Your task to perform on an android device: toggle show notifications on the lock screen Image 0: 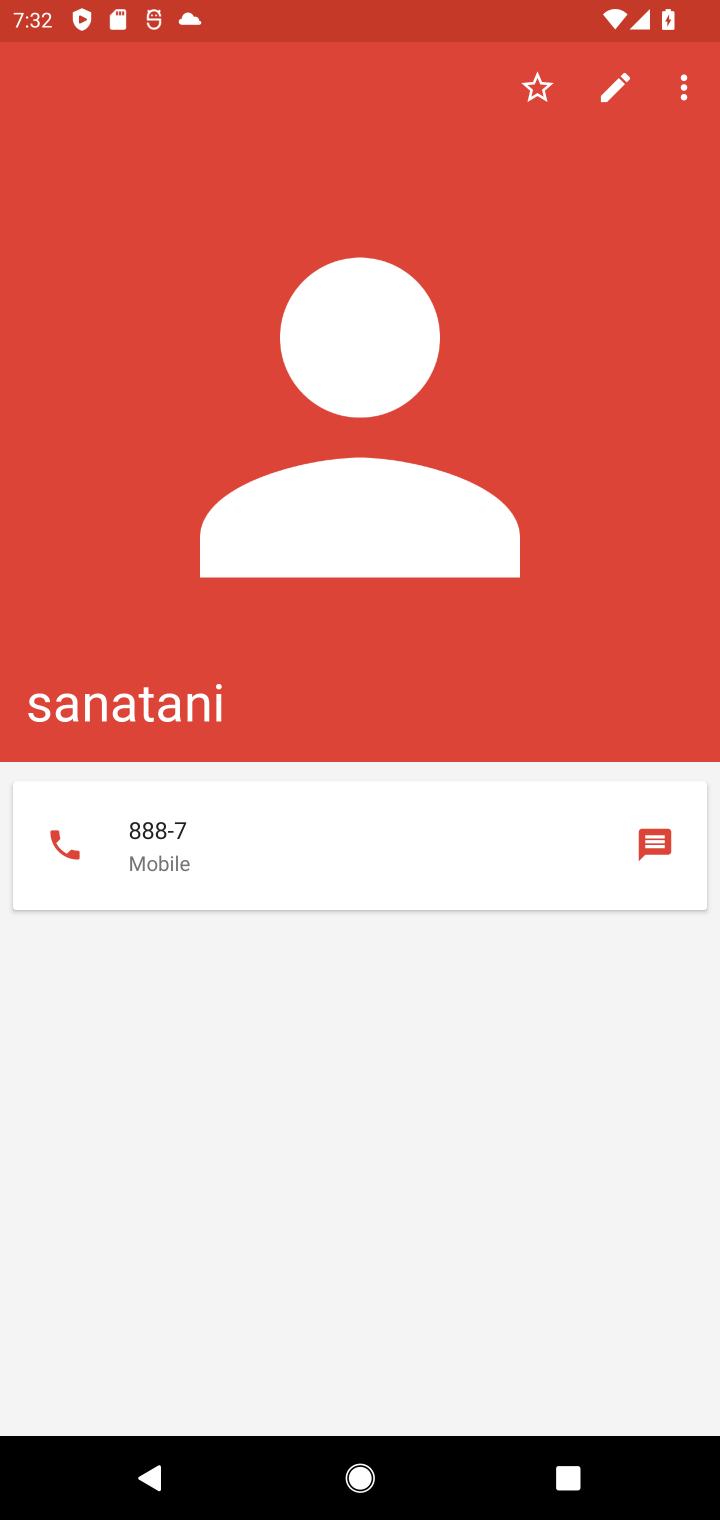
Step 0: press home button
Your task to perform on an android device: toggle show notifications on the lock screen Image 1: 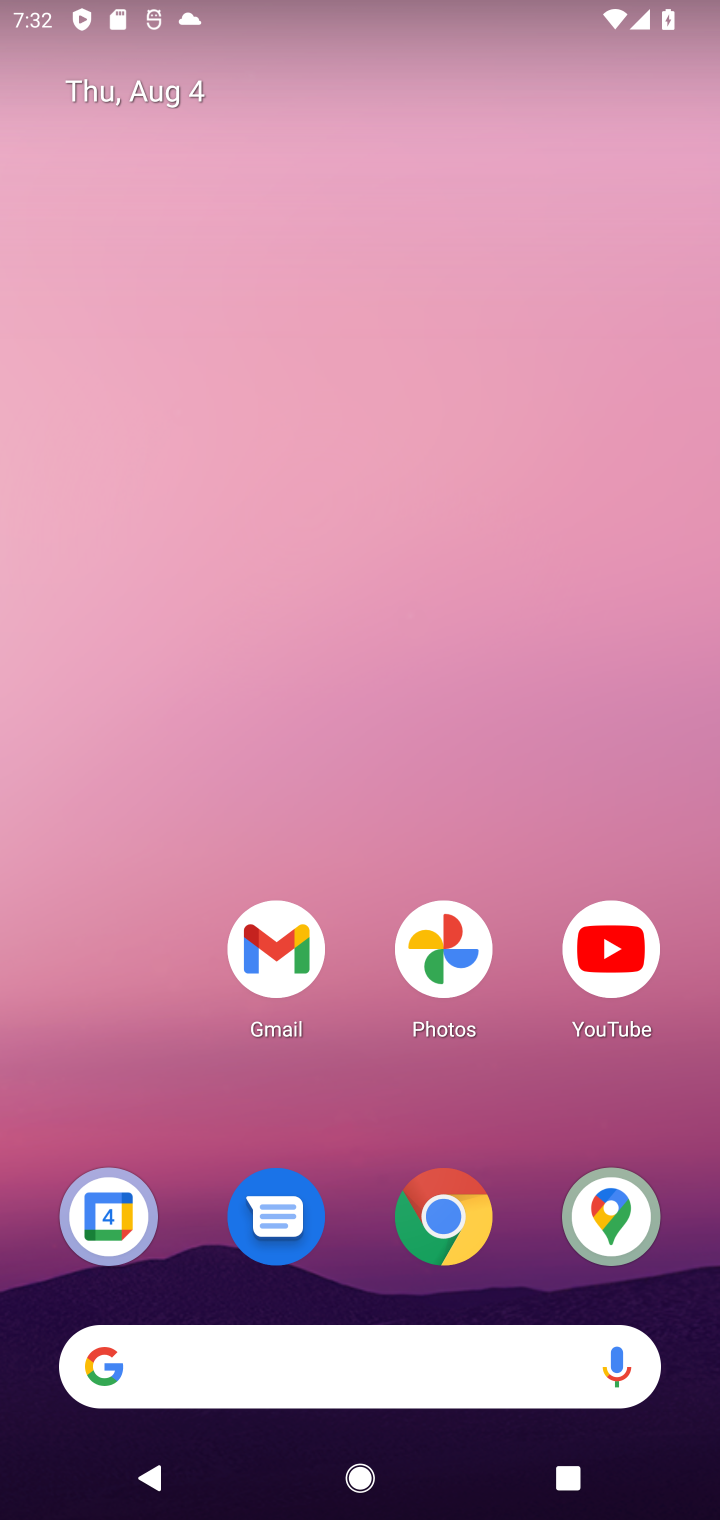
Step 1: drag from (382, 1291) to (337, 183)
Your task to perform on an android device: toggle show notifications on the lock screen Image 2: 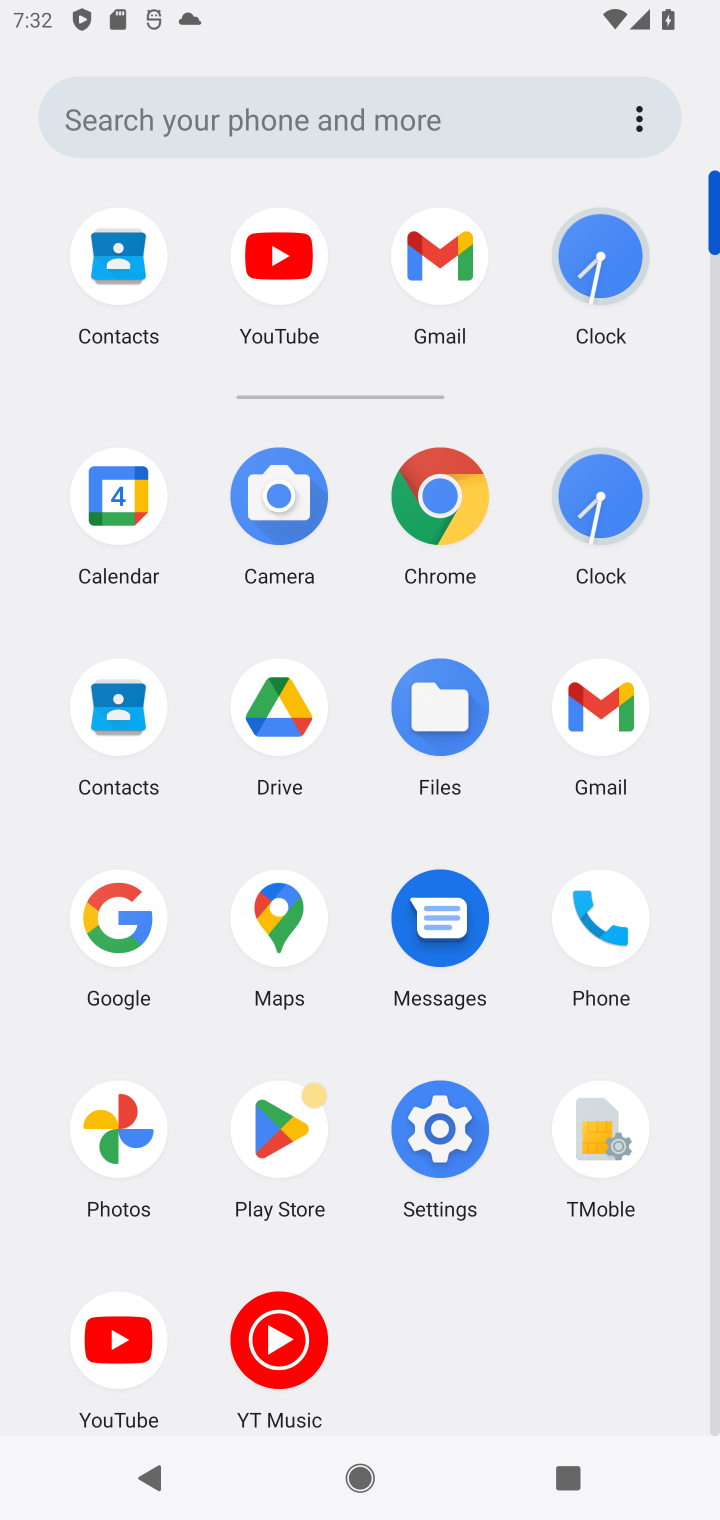
Step 2: click (422, 1115)
Your task to perform on an android device: toggle show notifications on the lock screen Image 3: 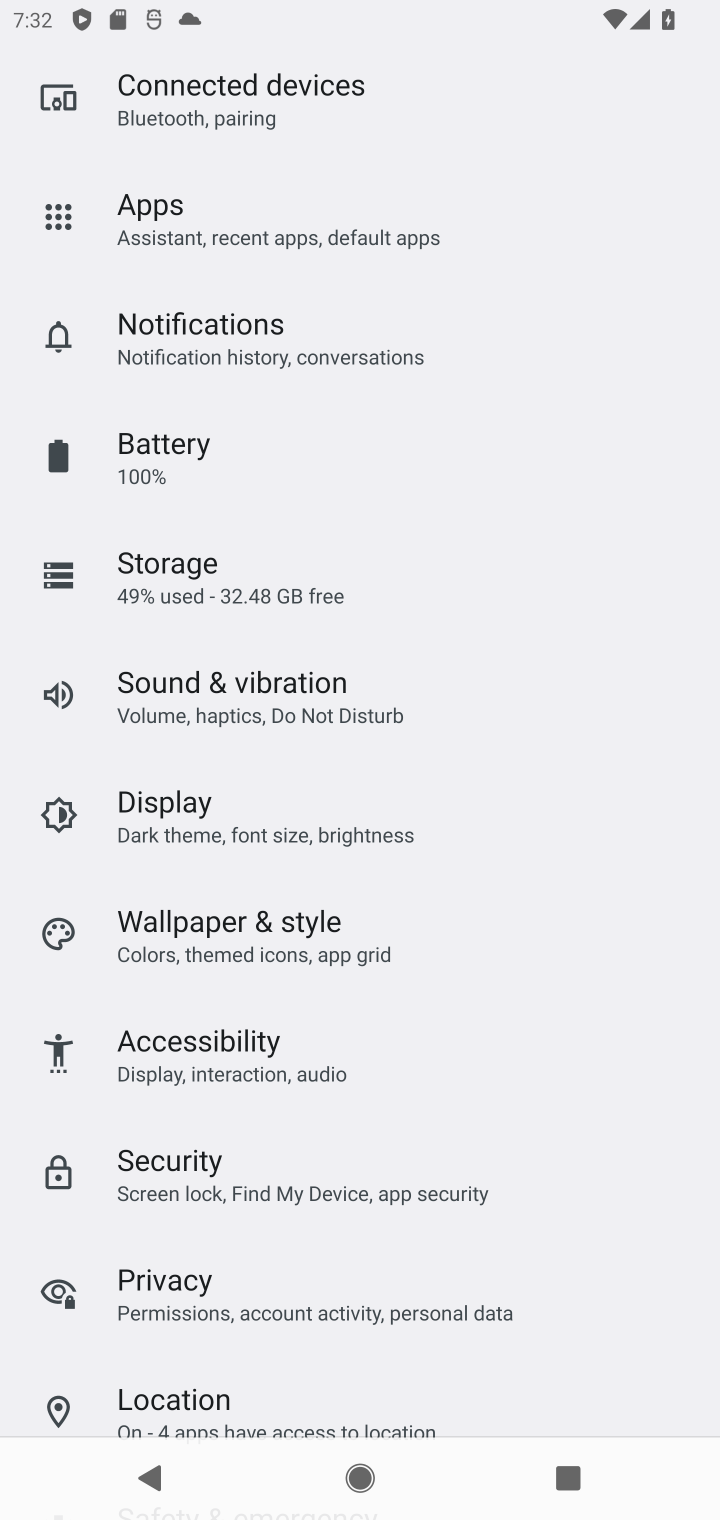
Step 3: click (222, 358)
Your task to perform on an android device: toggle show notifications on the lock screen Image 4: 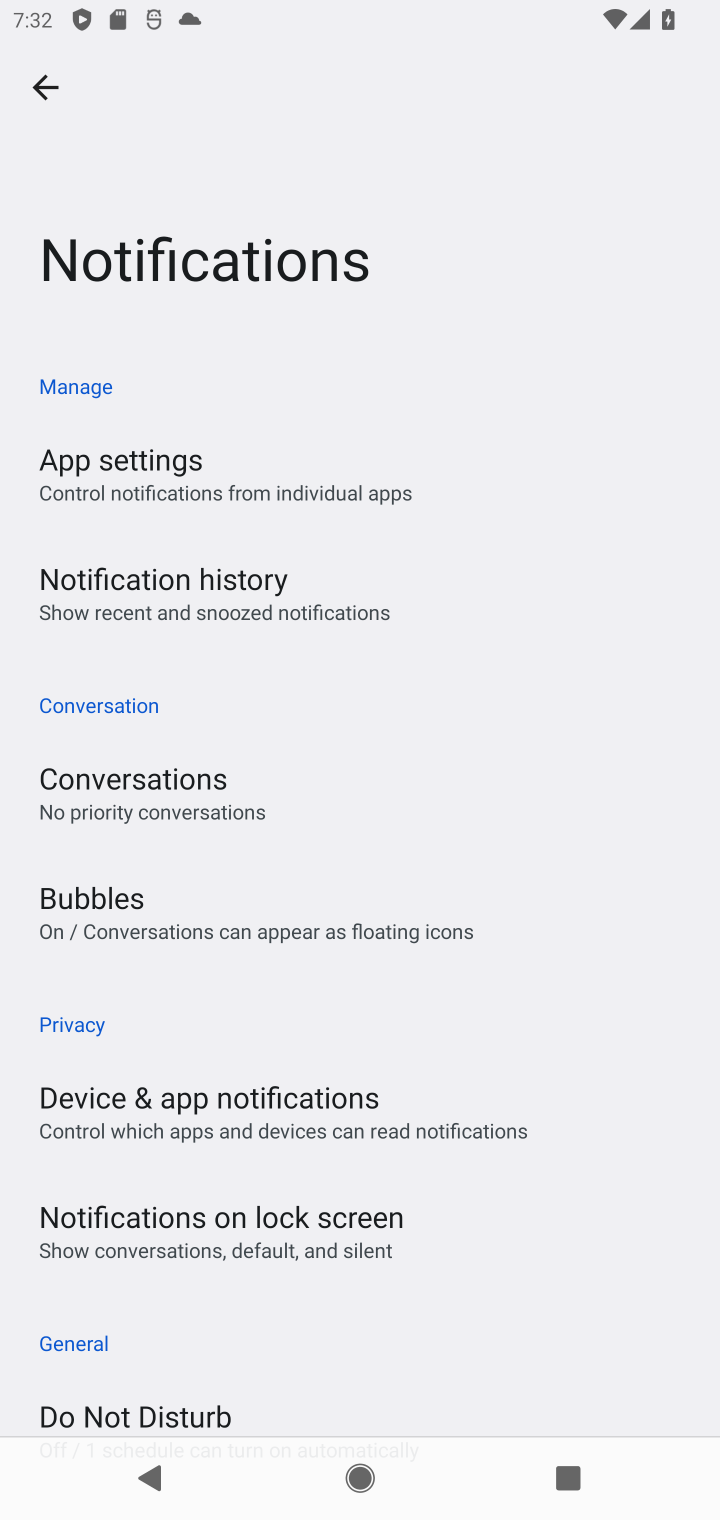
Step 4: drag from (201, 1248) to (226, 628)
Your task to perform on an android device: toggle show notifications on the lock screen Image 5: 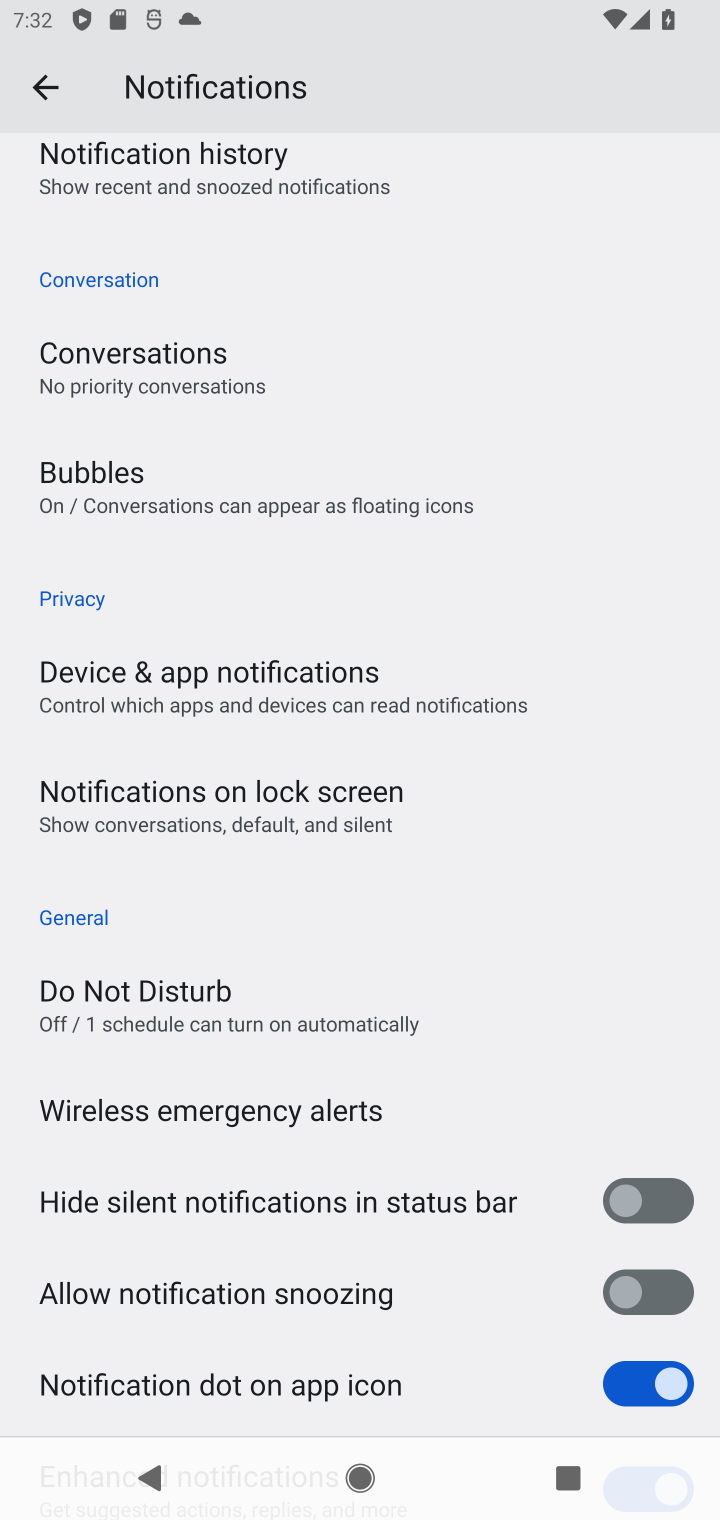
Step 5: click (197, 813)
Your task to perform on an android device: toggle show notifications on the lock screen Image 6: 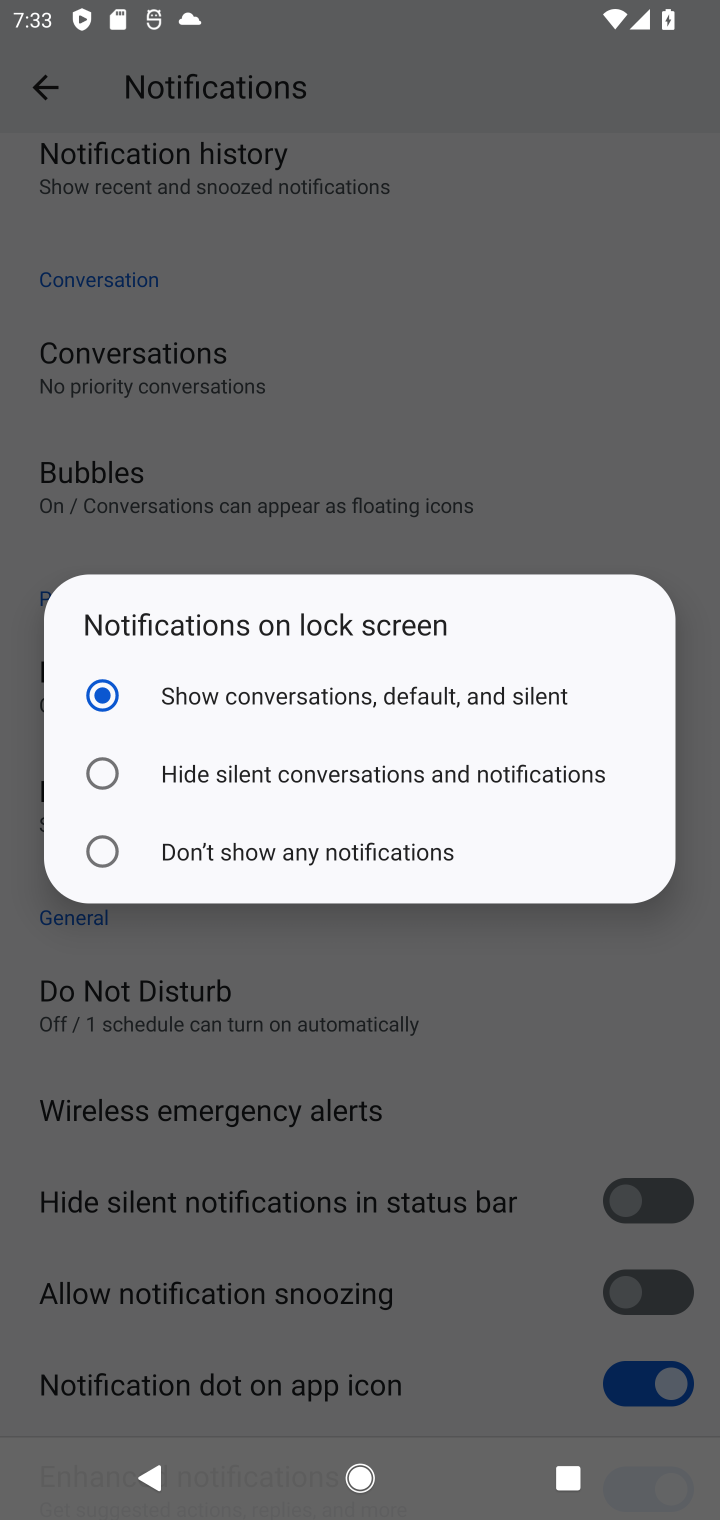
Step 6: click (111, 768)
Your task to perform on an android device: toggle show notifications on the lock screen Image 7: 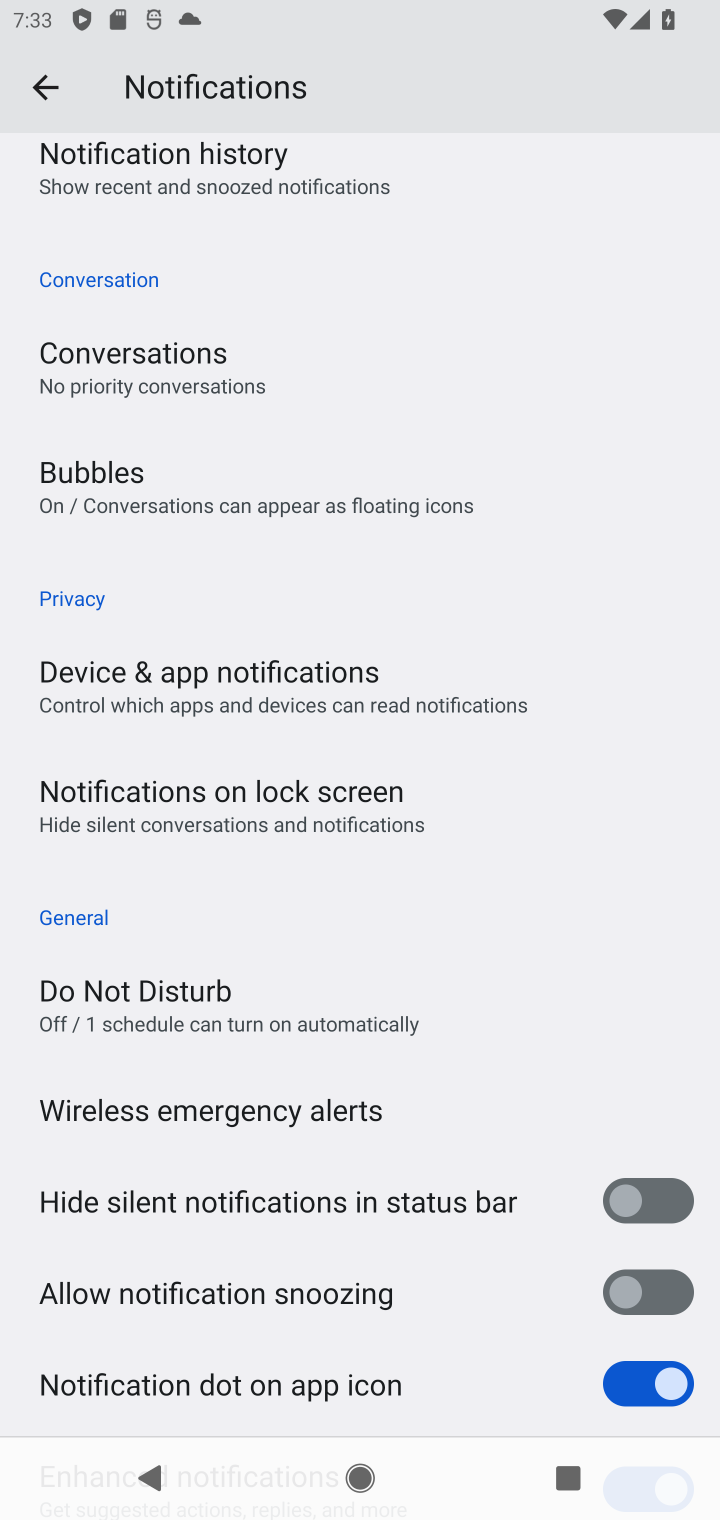
Step 7: task complete